Your task to perform on an android device: See recent photos Image 0: 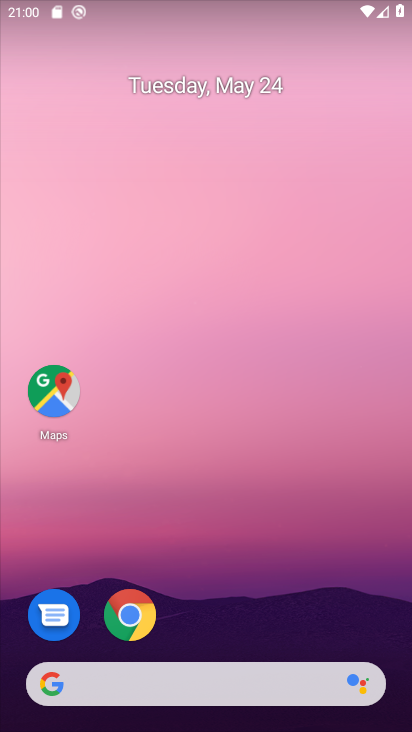
Step 0: drag from (228, 619) to (210, 226)
Your task to perform on an android device: See recent photos Image 1: 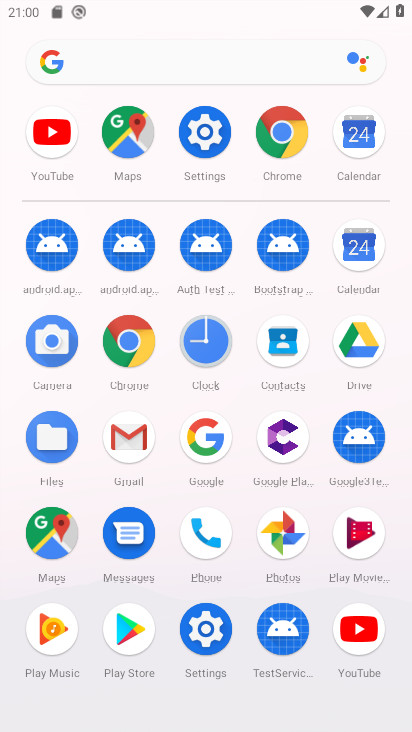
Step 1: click (278, 536)
Your task to perform on an android device: See recent photos Image 2: 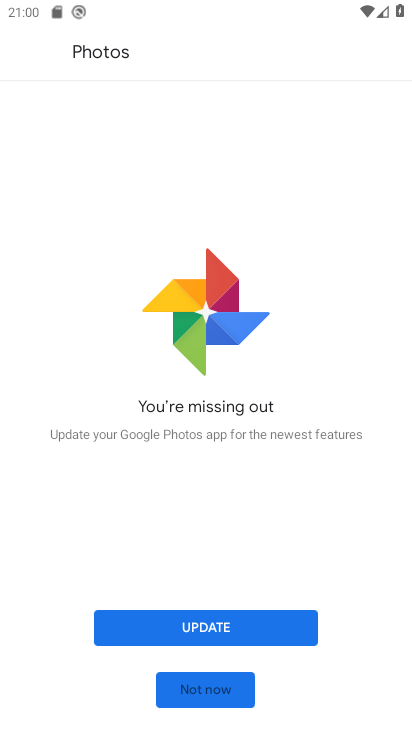
Step 2: click (210, 689)
Your task to perform on an android device: See recent photos Image 3: 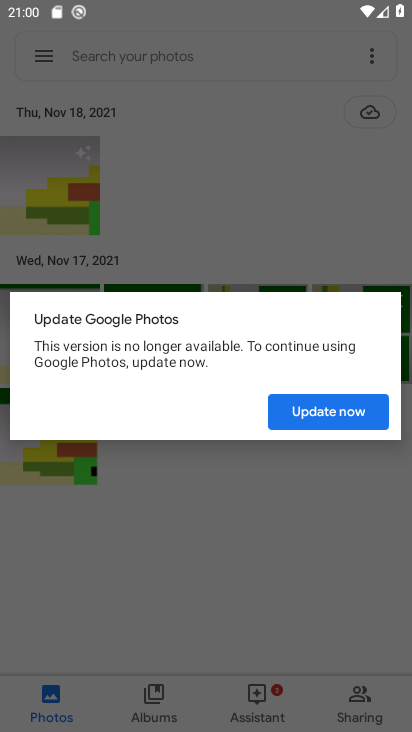
Step 3: click (312, 409)
Your task to perform on an android device: See recent photos Image 4: 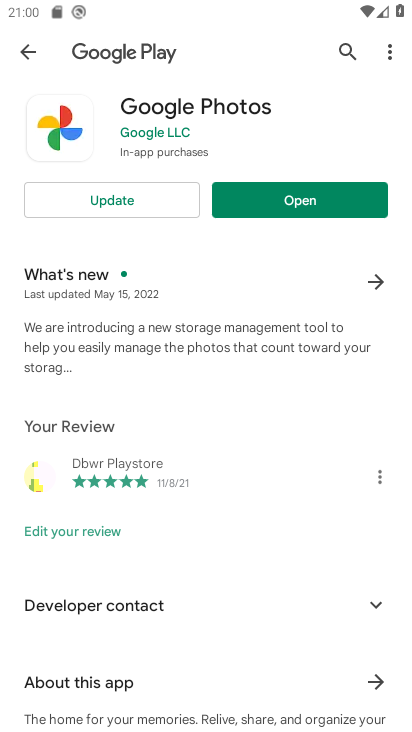
Step 4: press back button
Your task to perform on an android device: See recent photos Image 5: 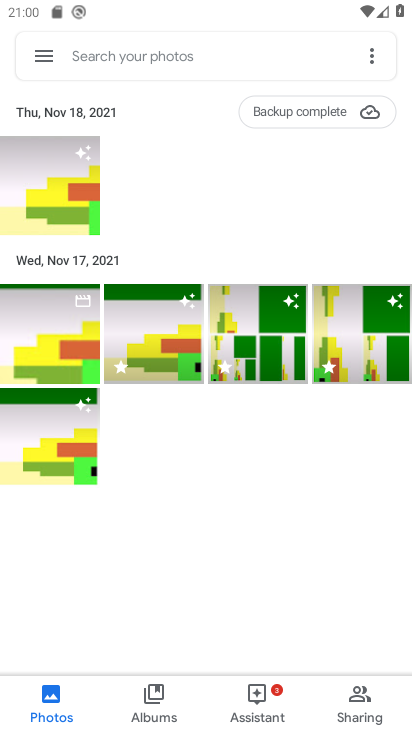
Step 5: click (71, 332)
Your task to perform on an android device: See recent photos Image 6: 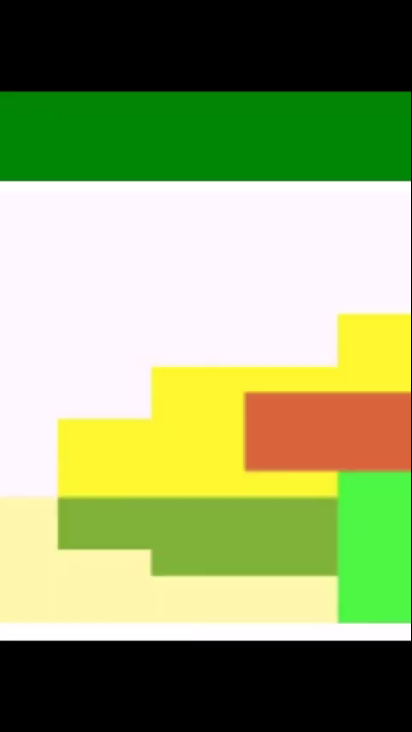
Step 6: task complete